Your task to perform on an android device: Go to Yahoo.com Image 0: 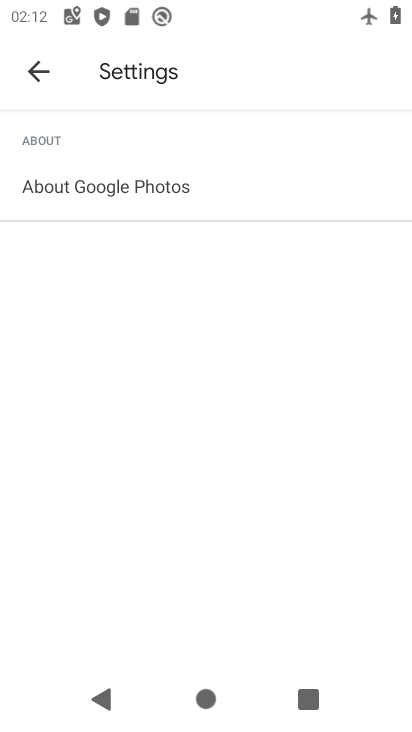
Step 0: press home button
Your task to perform on an android device: Go to Yahoo.com Image 1: 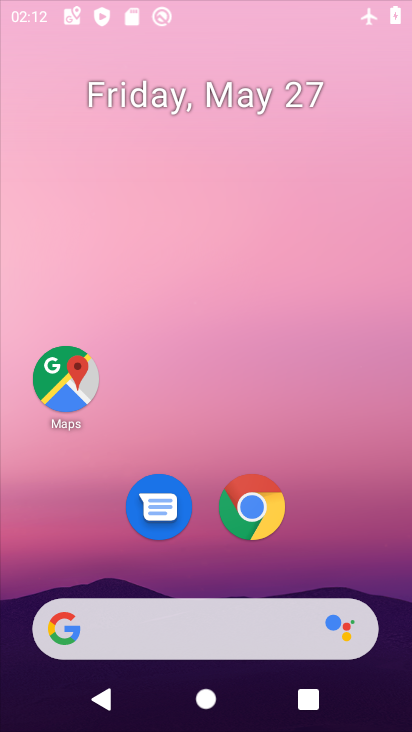
Step 1: drag from (235, 650) to (97, 23)
Your task to perform on an android device: Go to Yahoo.com Image 2: 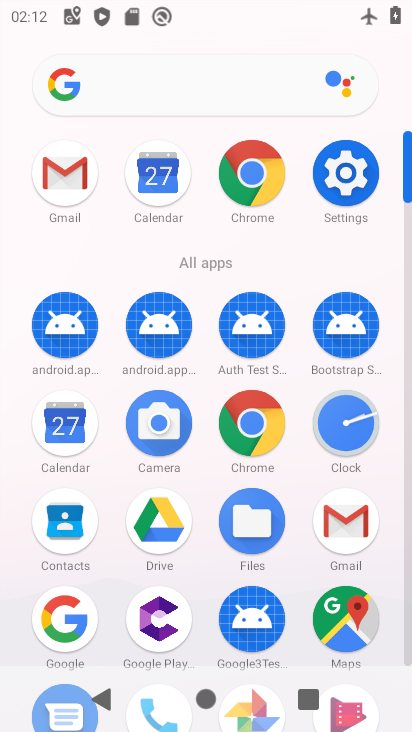
Step 2: click (197, 95)
Your task to perform on an android device: Go to Yahoo.com Image 3: 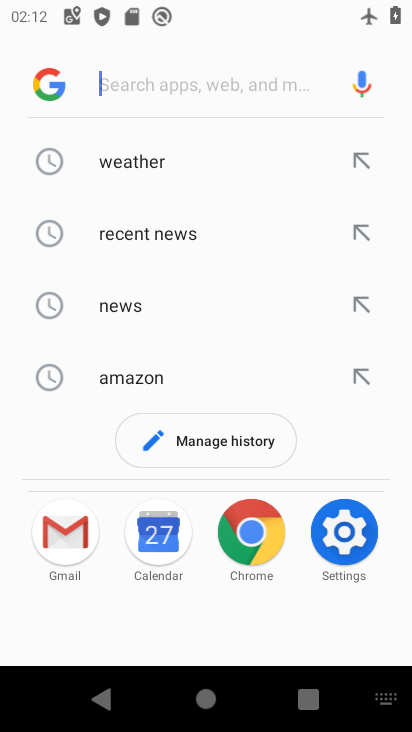
Step 3: type "Yahoo.com"
Your task to perform on an android device: Go to Yahoo.com Image 4: 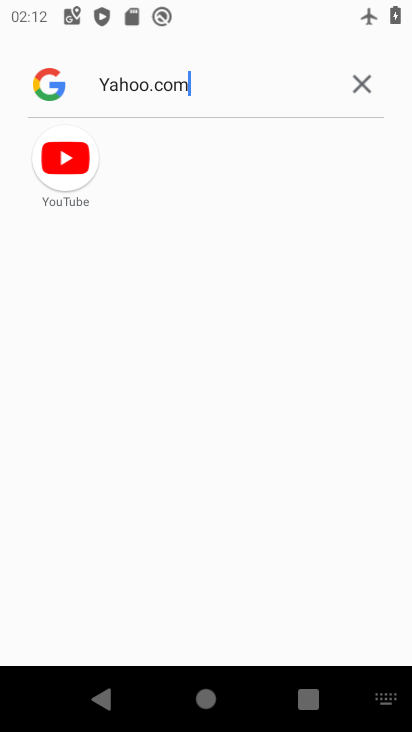
Step 4: type ""
Your task to perform on an android device: Go to Yahoo.com Image 5: 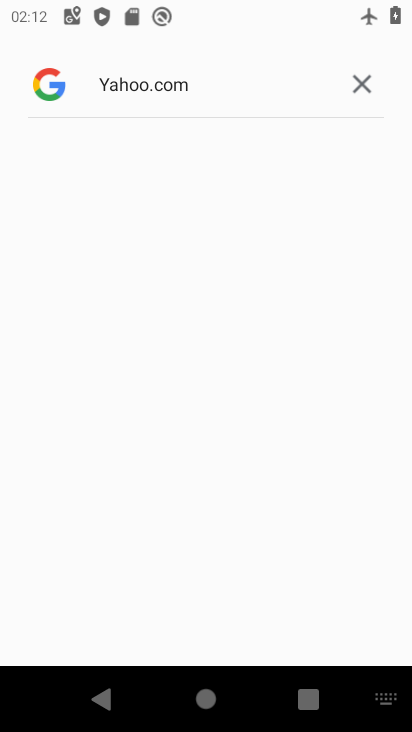
Step 5: task complete